Your task to perform on an android device: toggle translation in the chrome app Image 0: 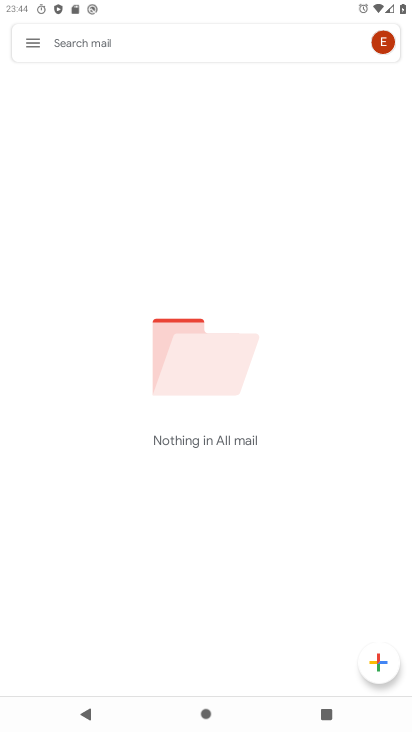
Step 0: press home button
Your task to perform on an android device: toggle translation in the chrome app Image 1: 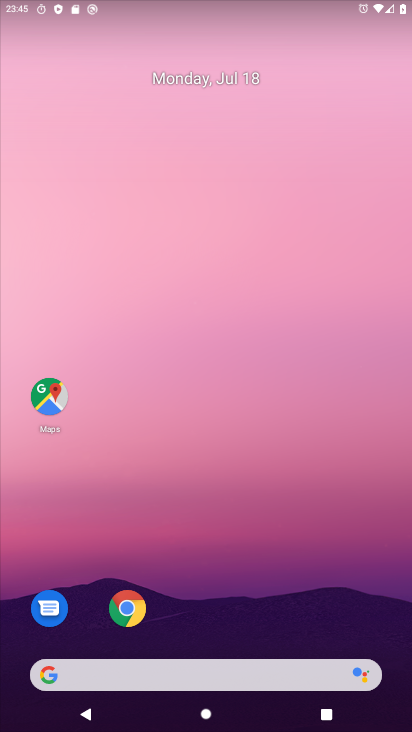
Step 1: click (128, 609)
Your task to perform on an android device: toggle translation in the chrome app Image 2: 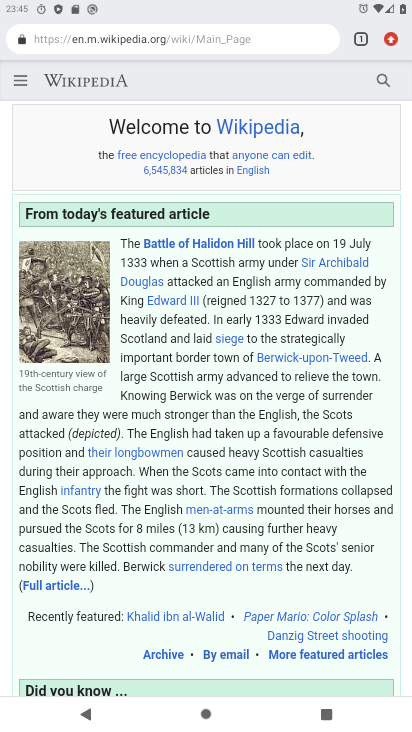
Step 2: click (392, 37)
Your task to perform on an android device: toggle translation in the chrome app Image 3: 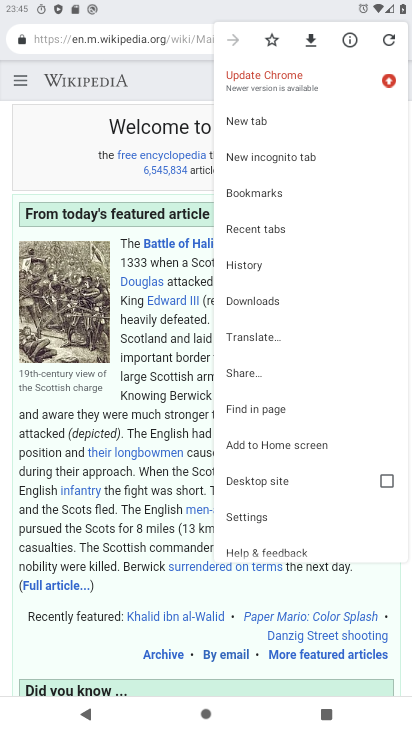
Step 3: click (248, 519)
Your task to perform on an android device: toggle translation in the chrome app Image 4: 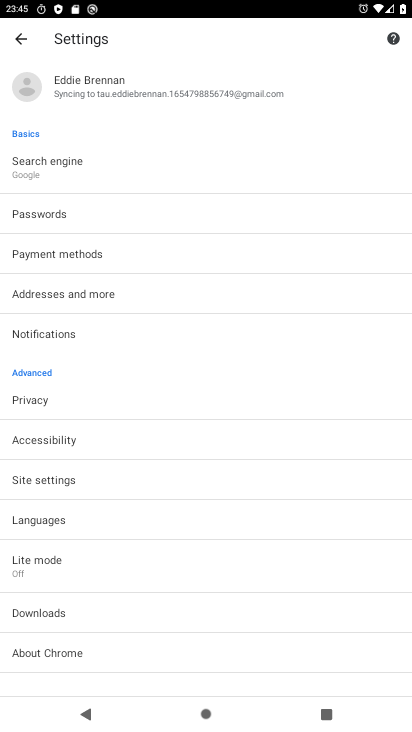
Step 4: click (42, 521)
Your task to perform on an android device: toggle translation in the chrome app Image 5: 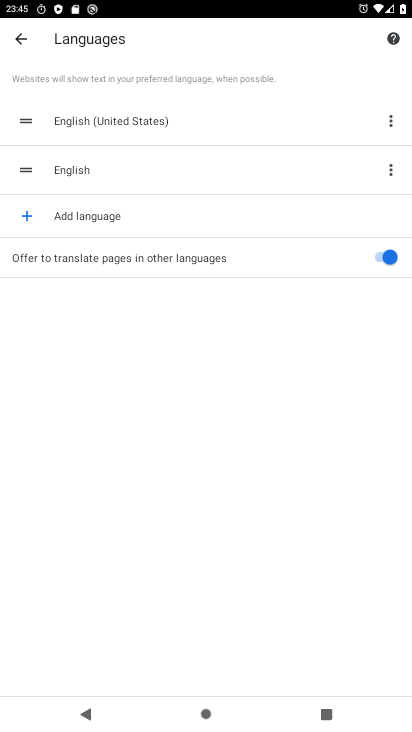
Step 5: click (392, 255)
Your task to perform on an android device: toggle translation in the chrome app Image 6: 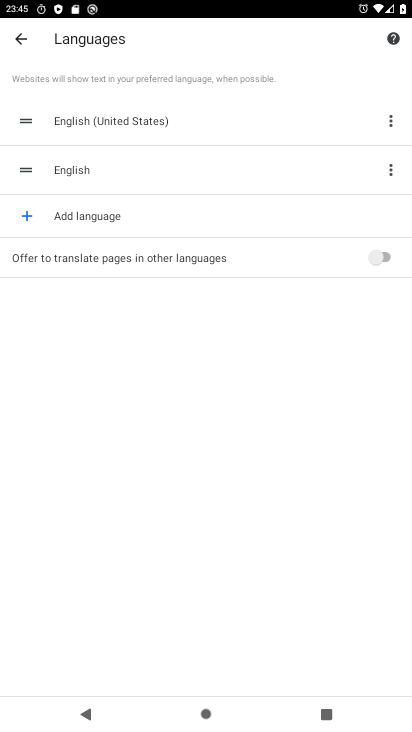
Step 6: task complete